Your task to perform on an android device: find photos in the google photos app Image 0: 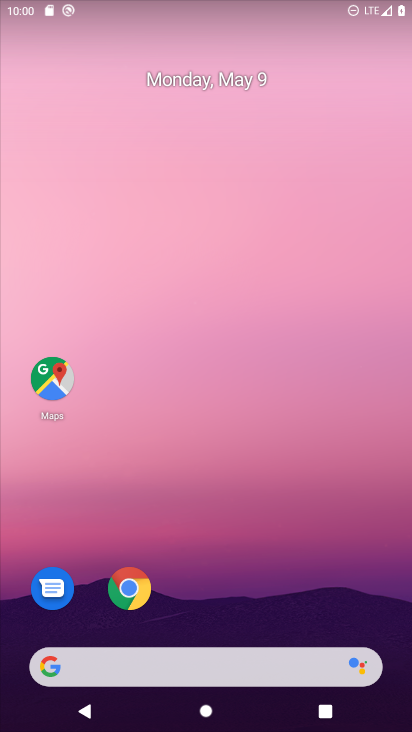
Step 0: drag from (347, 592) to (194, 168)
Your task to perform on an android device: find photos in the google photos app Image 1: 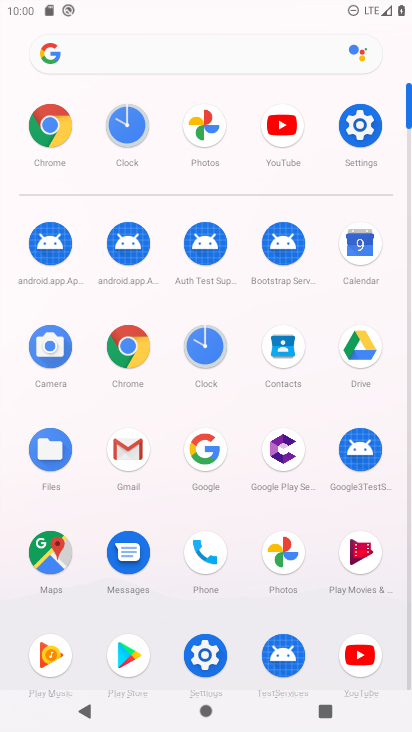
Step 1: click (295, 571)
Your task to perform on an android device: find photos in the google photos app Image 2: 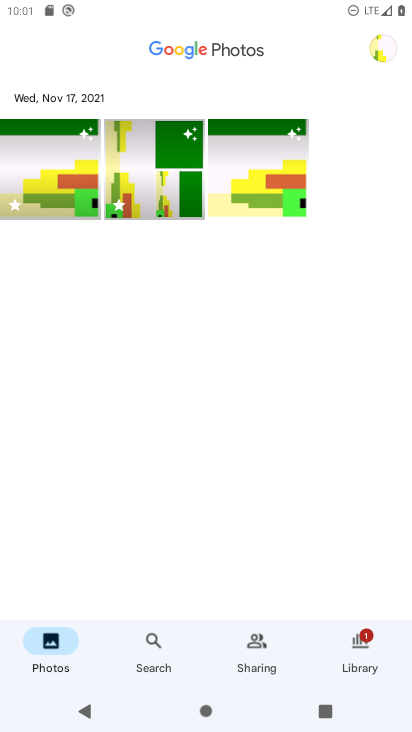
Step 2: task complete